Your task to perform on an android device: toggle notifications settings in the gmail app Image 0: 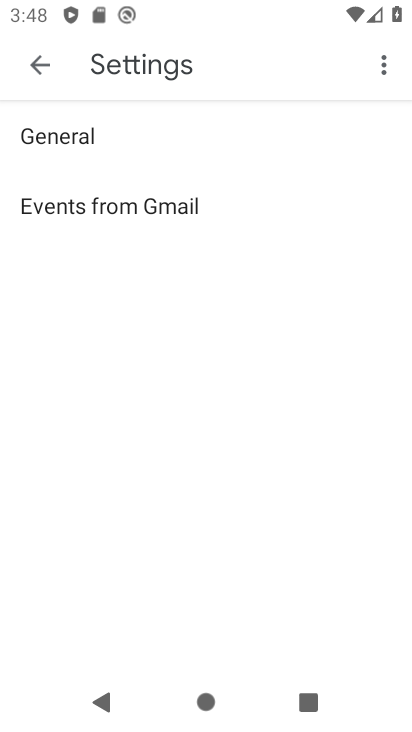
Step 0: press home button
Your task to perform on an android device: toggle notifications settings in the gmail app Image 1: 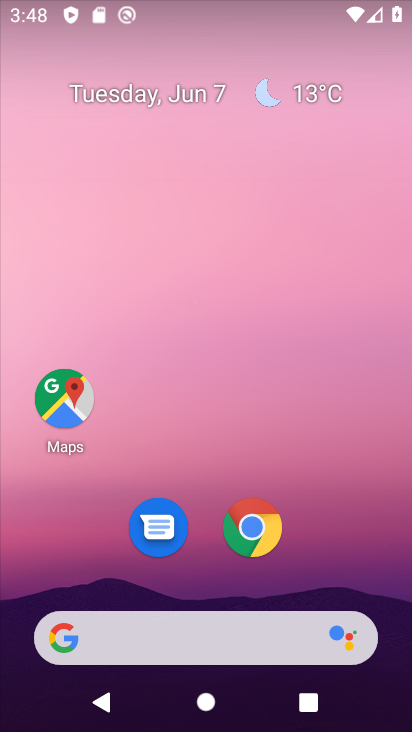
Step 1: drag from (307, 587) to (390, 401)
Your task to perform on an android device: toggle notifications settings in the gmail app Image 2: 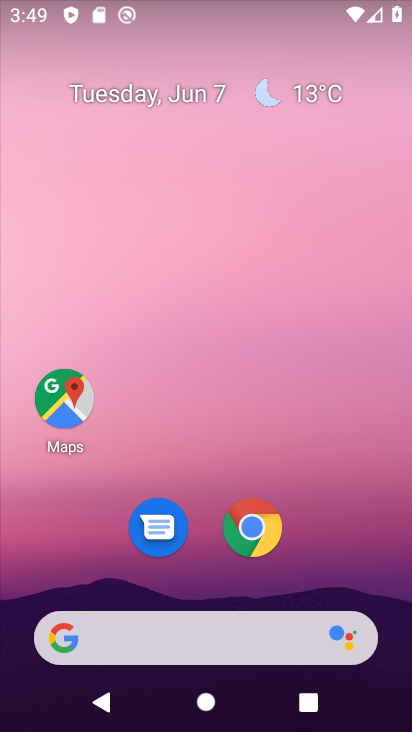
Step 2: drag from (204, 594) to (311, 84)
Your task to perform on an android device: toggle notifications settings in the gmail app Image 3: 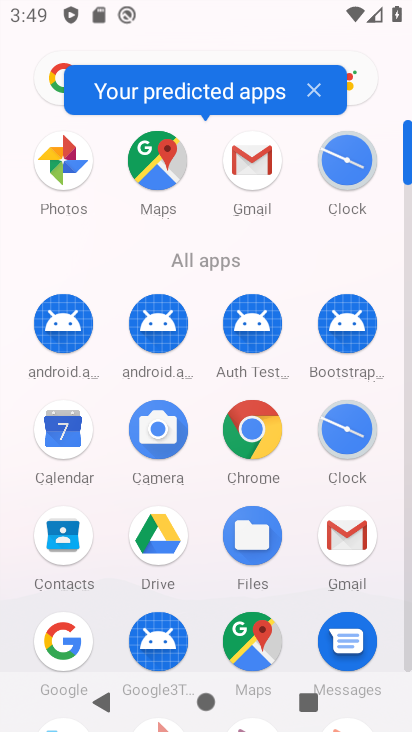
Step 3: click (246, 157)
Your task to perform on an android device: toggle notifications settings in the gmail app Image 4: 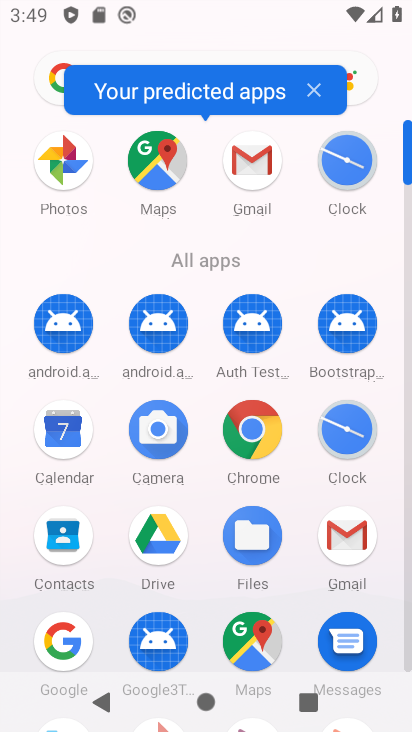
Step 4: click (246, 157)
Your task to perform on an android device: toggle notifications settings in the gmail app Image 5: 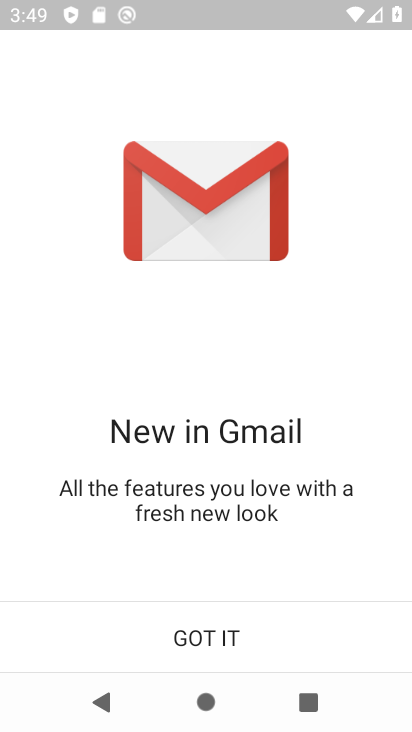
Step 5: click (215, 625)
Your task to perform on an android device: toggle notifications settings in the gmail app Image 6: 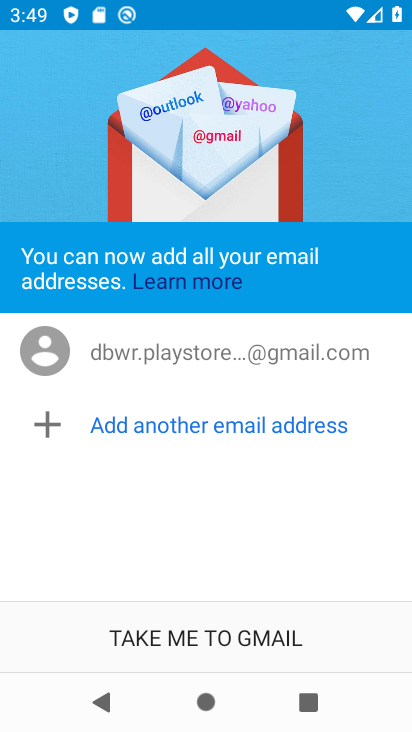
Step 6: click (215, 625)
Your task to perform on an android device: toggle notifications settings in the gmail app Image 7: 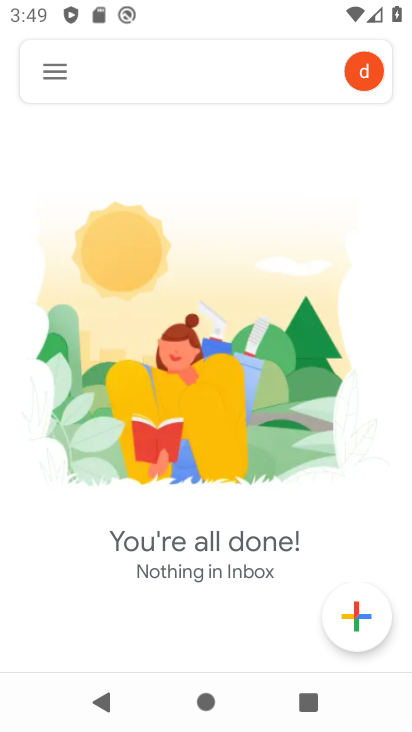
Step 7: click (56, 78)
Your task to perform on an android device: toggle notifications settings in the gmail app Image 8: 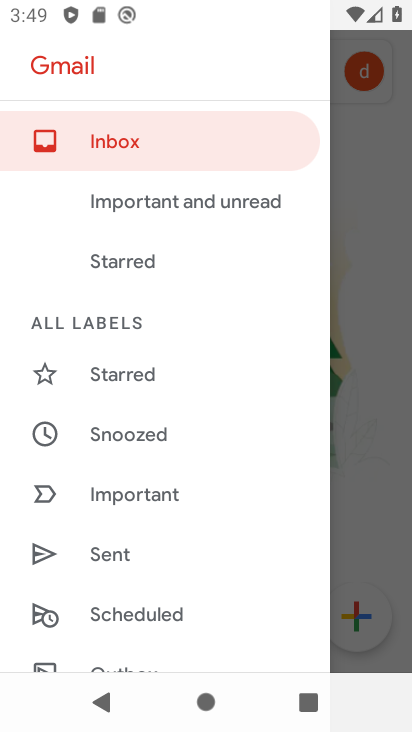
Step 8: drag from (191, 623) to (222, 167)
Your task to perform on an android device: toggle notifications settings in the gmail app Image 9: 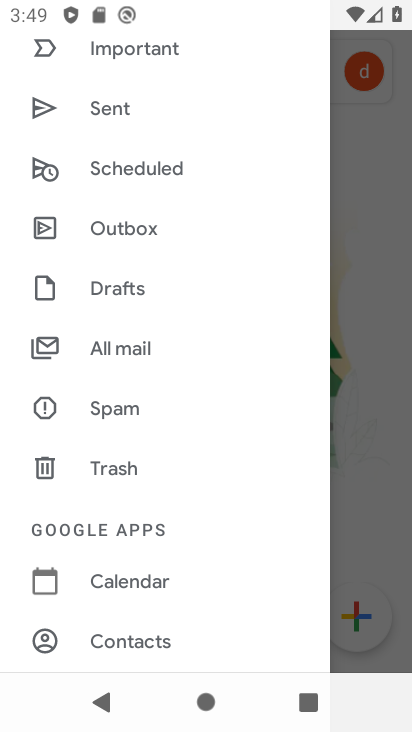
Step 9: drag from (131, 543) to (227, 146)
Your task to perform on an android device: toggle notifications settings in the gmail app Image 10: 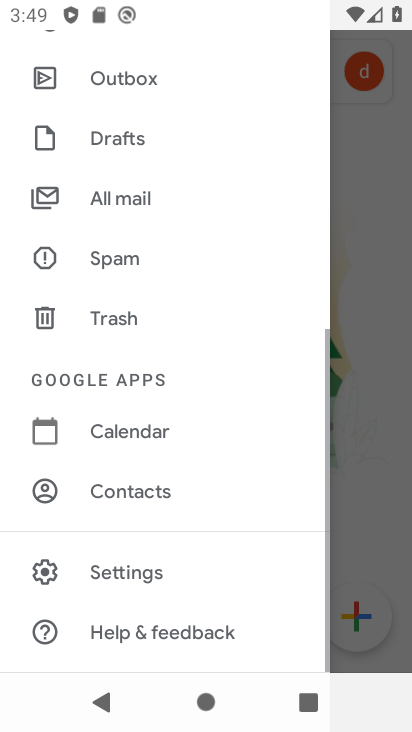
Step 10: click (122, 576)
Your task to perform on an android device: toggle notifications settings in the gmail app Image 11: 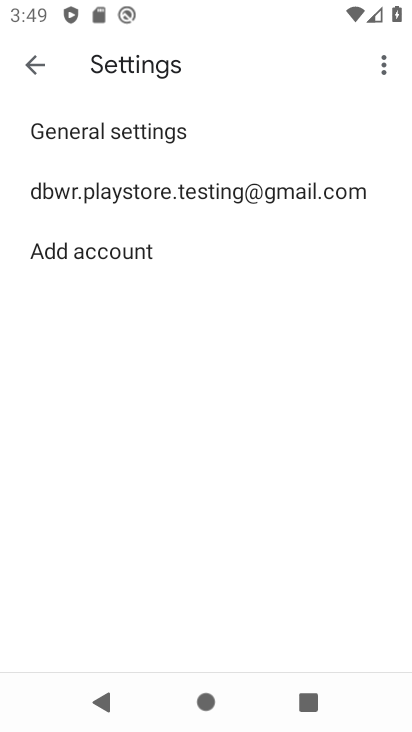
Step 11: click (199, 203)
Your task to perform on an android device: toggle notifications settings in the gmail app Image 12: 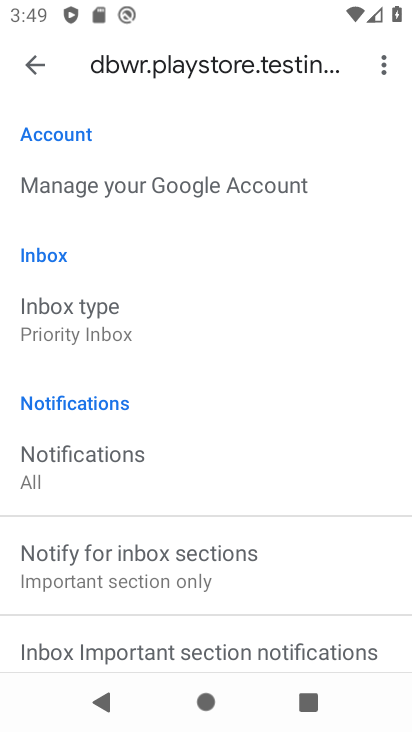
Step 12: click (100, 455)
Your task to perform on an android device: toggle notifications settings in the gmail app Image 13: 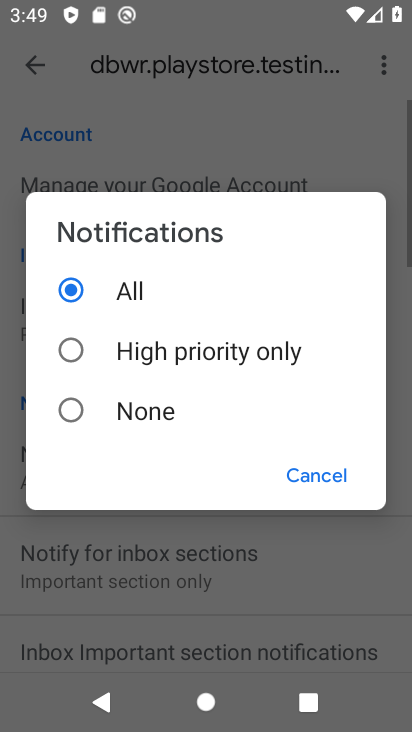
Step 13: click (164, 370)
Your task to perform on an android device: toggle notifications settings in the gmail app Image 14: 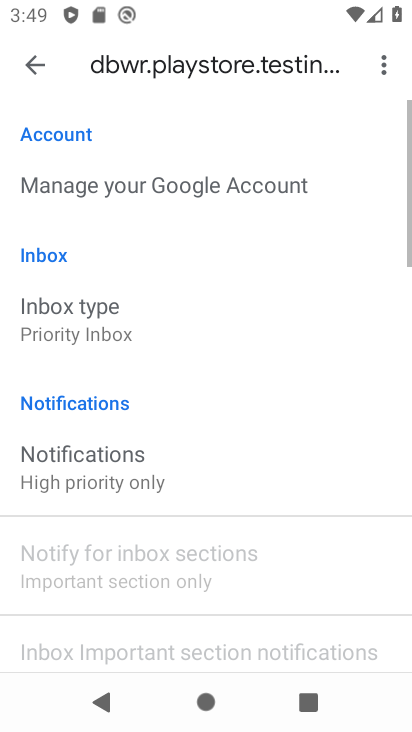
Step 14: task complete